Your task to perform on an android device: change notifications settings Image 0: 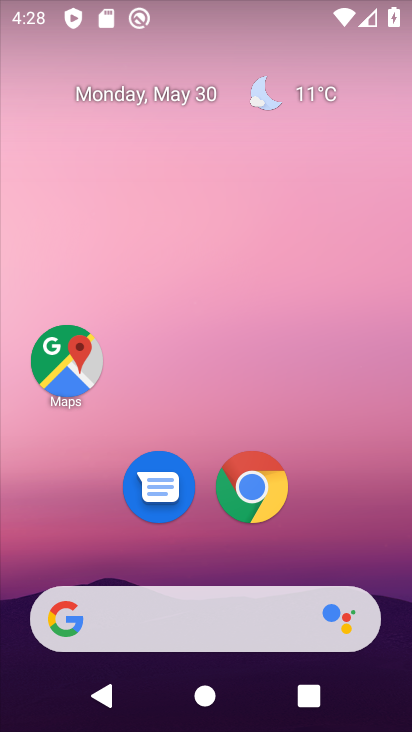
Step 0: drag from (403, 611) to (284, 19)
Your task to perform on an android device: change notifications settings Image 1: 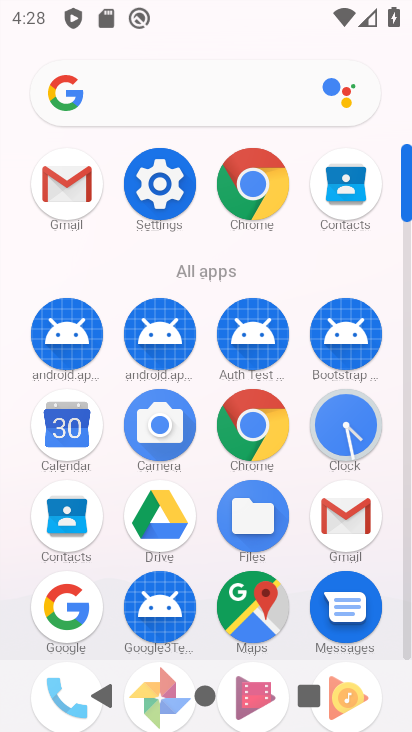
Step 1: click (409, 614)
Your task to perform on an android device: change notifications settings Image 2: 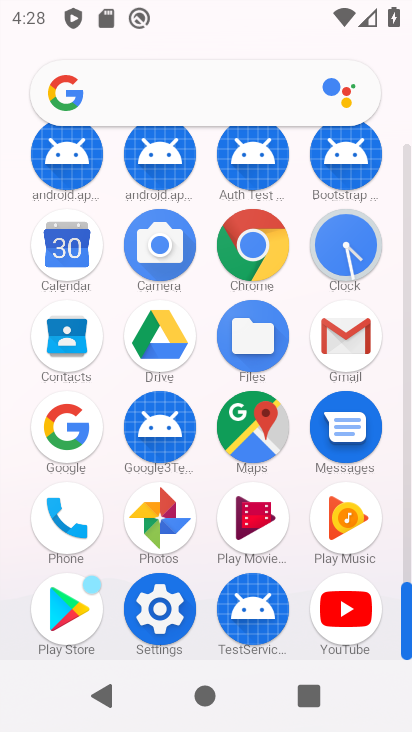
Step 2: click (158, 610)
Your task to perform on an android device: change notifications settings Image 3: 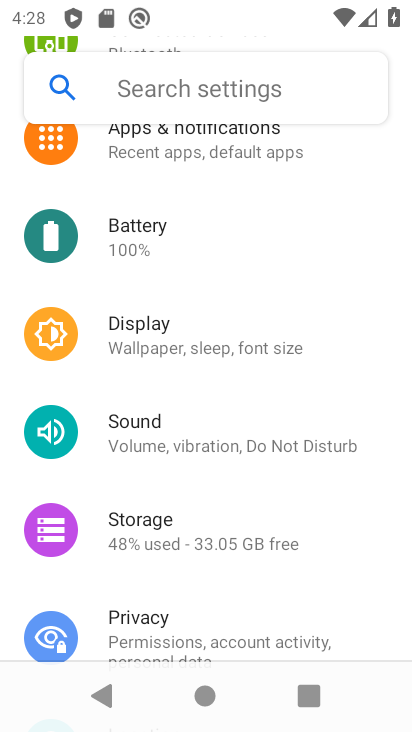
Step 3: drag from (301, 175) to (306, 416)
Your task to perform on an android device: change notifications settings Image 4: 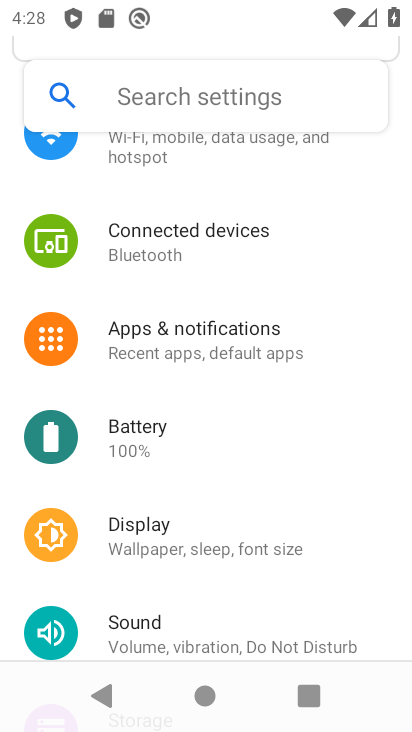
Step 4: click (137, 316)
Your task to perform on an android device: change notifications settings Image 5: 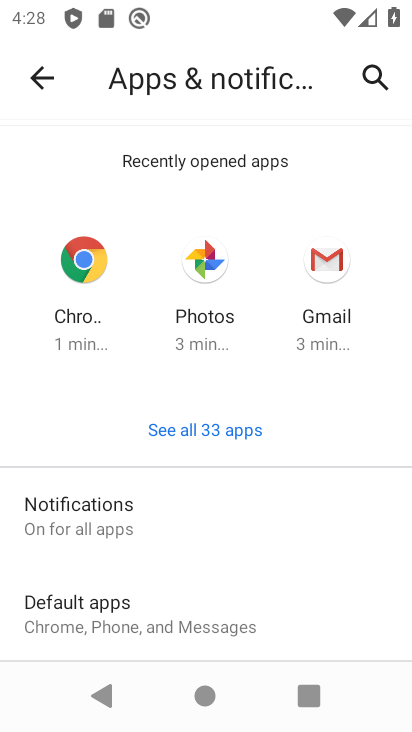
Step 5: drag from (249, 574) to (293, 267)
Your task to perform on an android device: change notifications settings Image 6: 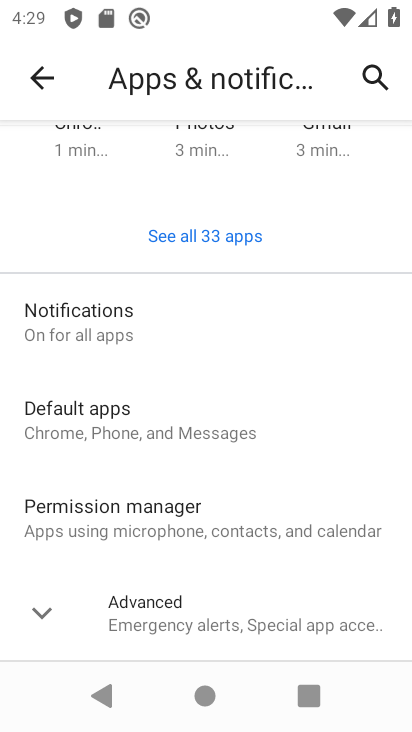
Step 6: click (97, 326)
Your task to perform on an android device: change notifications settings Image 7: 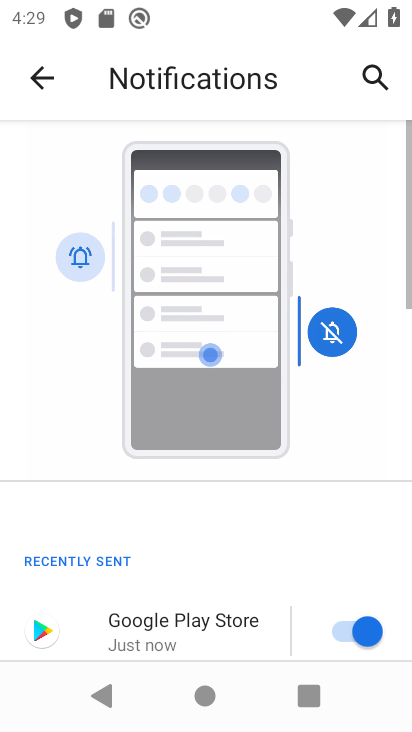
Step 7: drag from (322, 629) to (245, 160)
Your task to perform on an android device: change notifications settings Image 8: 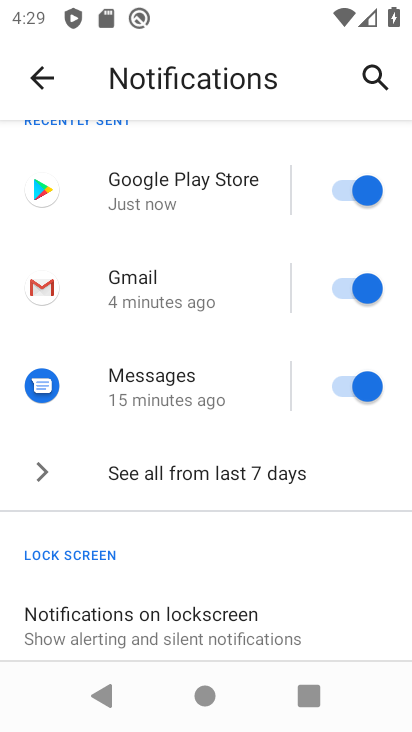
Step 8: drag from (280, 627) to (271, 205)
Your task to perform on an android device: change notifications settings Image 9: 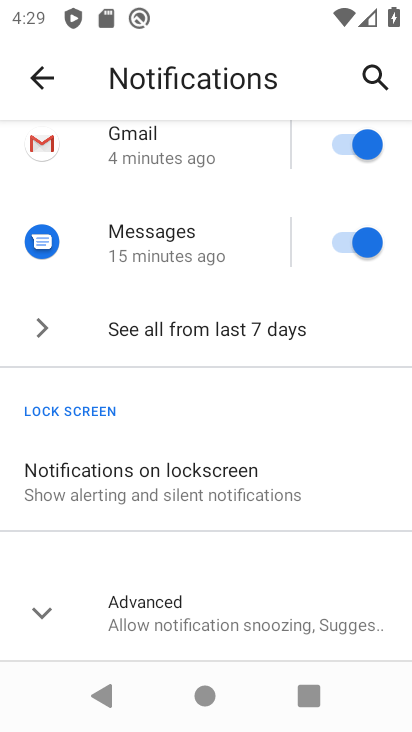
Step 9: click (35, 606)
Your task to perform on an android device: change notifications settings Image 10: 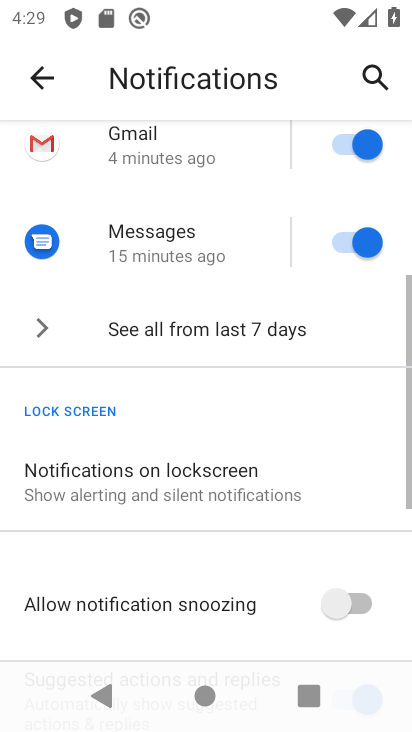
Step 10: drag from (301, 613) to (265, 161)
Your task to perform on an android device: change notifications settings Image 11: 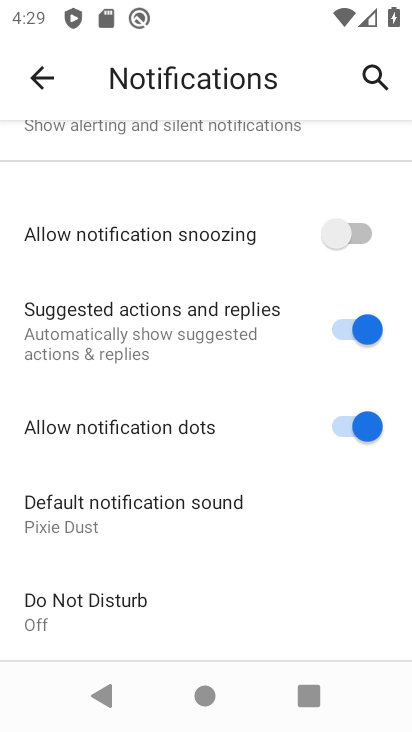
Step 11: click (359, 238)
Your task to perform on an android device: change notifications settings Image 12: 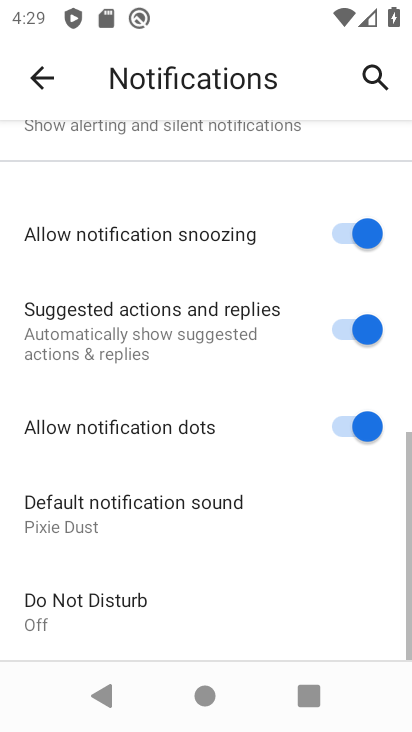
Step 12: click (336, 429)
Your task to perform on an android device: change notifications settings Image 13: 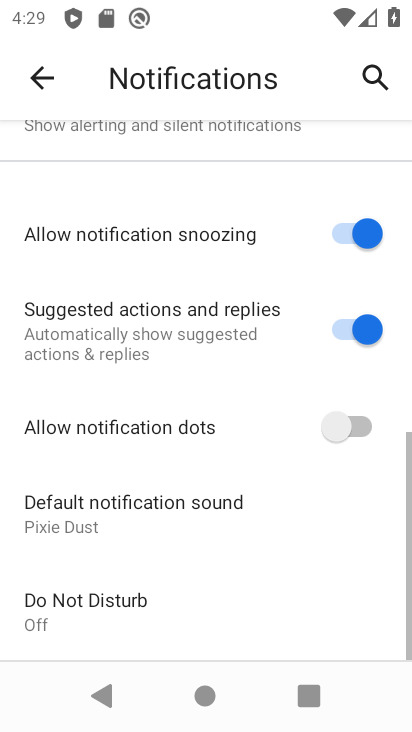
Step 13: task complete